Your task to perform on an android device: change the clock style Image 0: 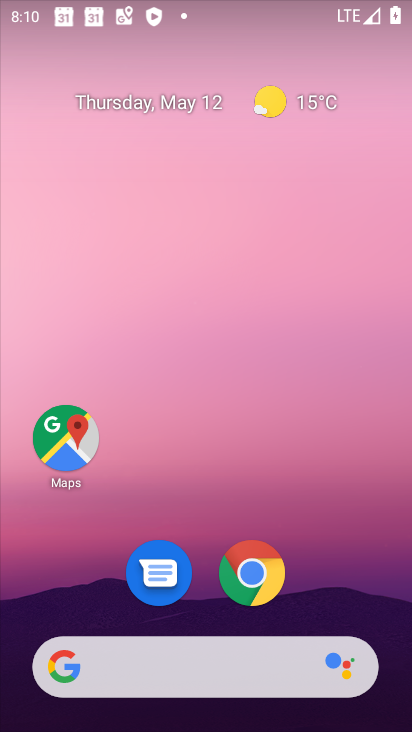
Step 0: drag from (327, 525) to (211, 19)
Your task to perform on an android device: change the clock style Image 1: 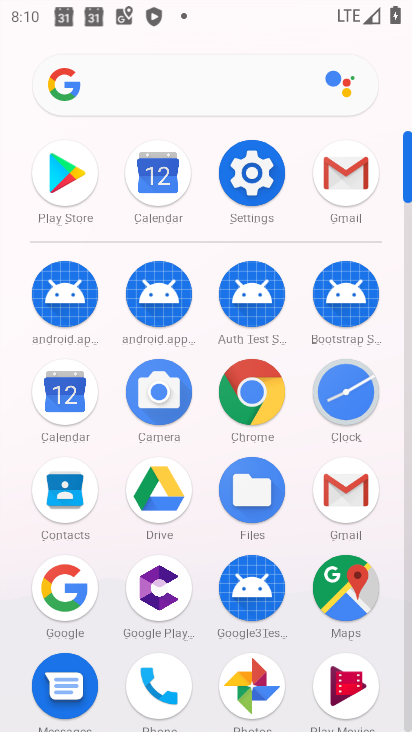
Step 1: click (338, 379)
Your task to perform on an android device: change the clock style Image 2: 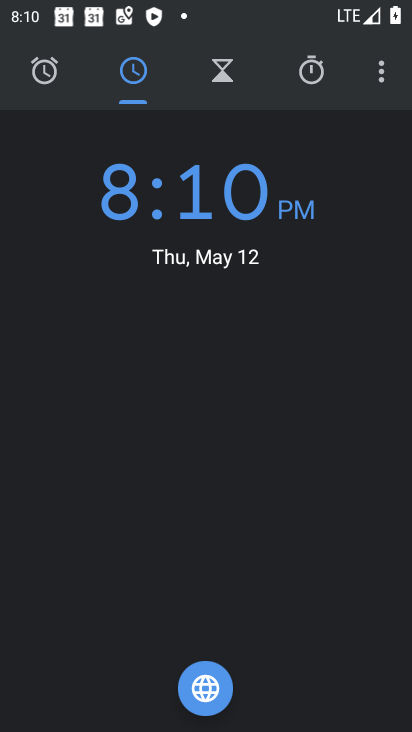
Step 2: click (378, 66)
Your task to perform on an android device: change the clock style Image 3: 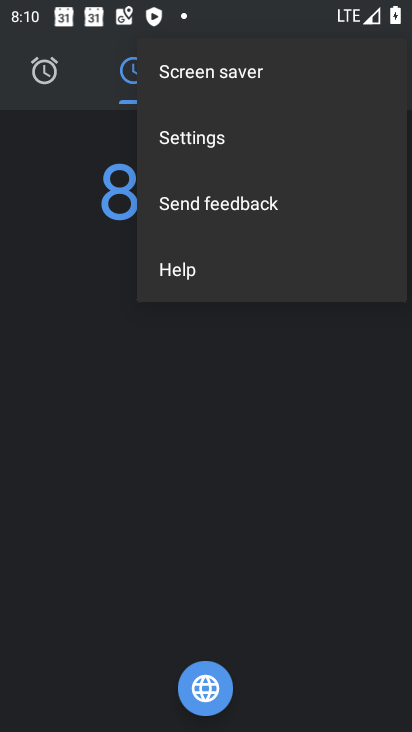
Step 3: click (198, 133)
Your task to perform on an android device: change the clock style Image 4: 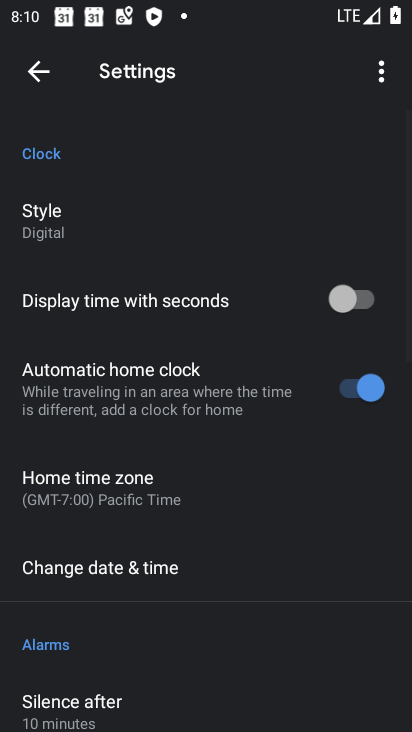
Step 4: click (57, 220)
Your task to perform on an android device: change the clock style Image 5: 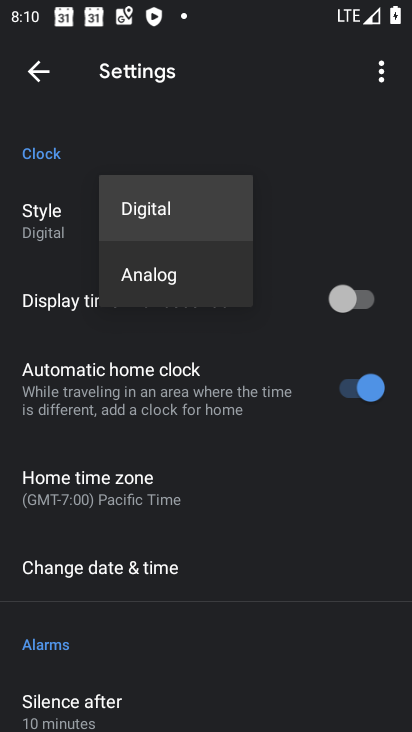
Step 5: click (151, 278)
Your task to perform on an android device: change the clock style Image 6: 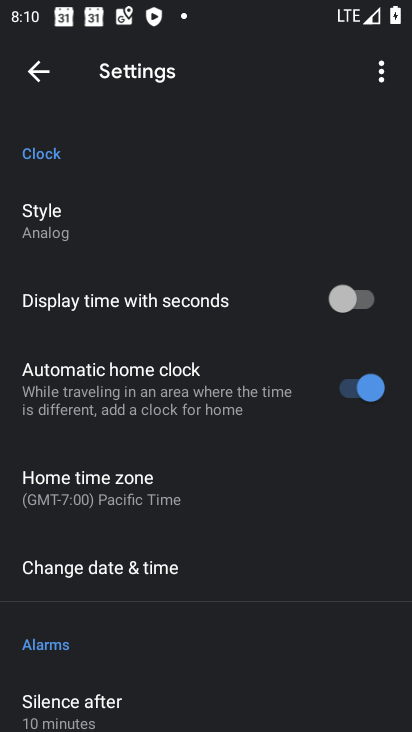
Step 6: task complete